Your task to perform on an android device: turn on the 24-hour format for clock Image 0: 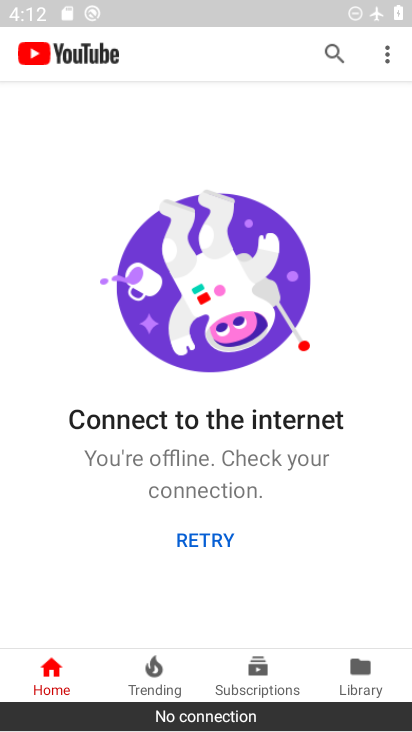
Step 0: press back button
Your task to perform on an android device: turn on the 24-hour format for clock Image 1: 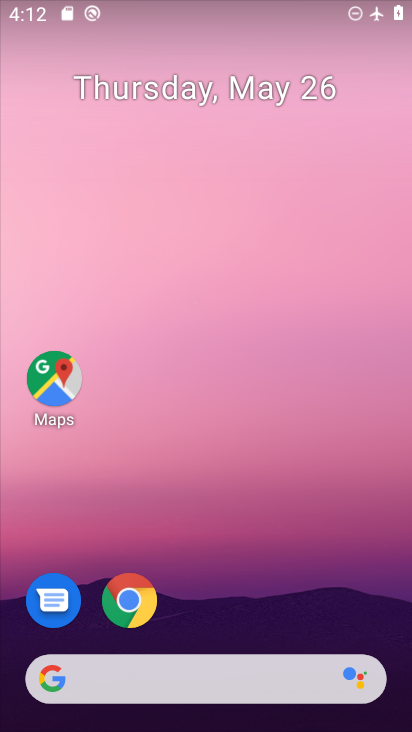
Step 1: drag from (288, 556) to (189, 18)
Your task to perform on an android device: turn on the 24-hour format for clock Image 2: 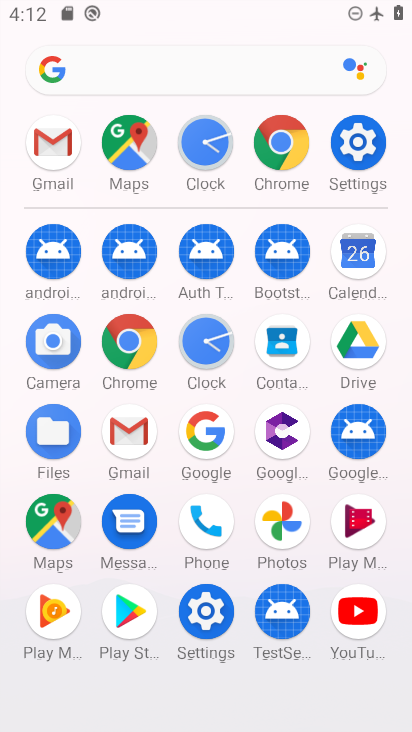
Step 2: click (214, 338)
Your task to perform on an android device: turn on the 24-hour format for clock Image 3: 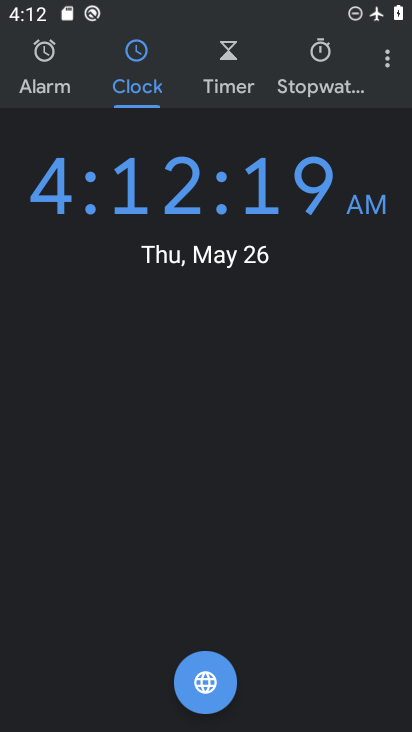
Step 3: drag from (382, 63) to (342, 119)
Your task to perform on an android device: turn on the 24-hour format for clock Image 4: 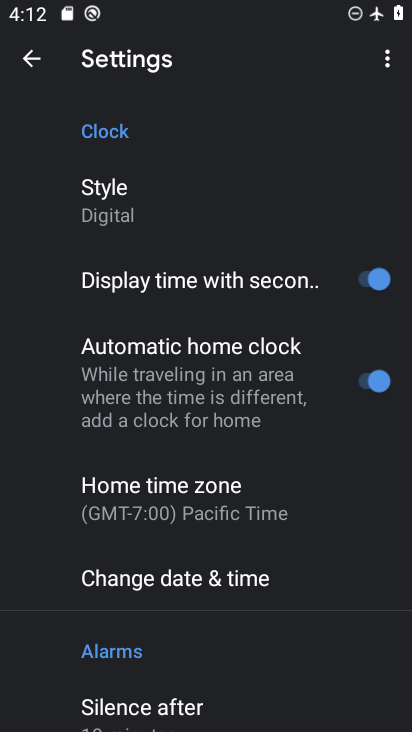
Step 4: click (216, 590)
Your task to perform on an android device: turn on the 24-hour format for clock Image 5: 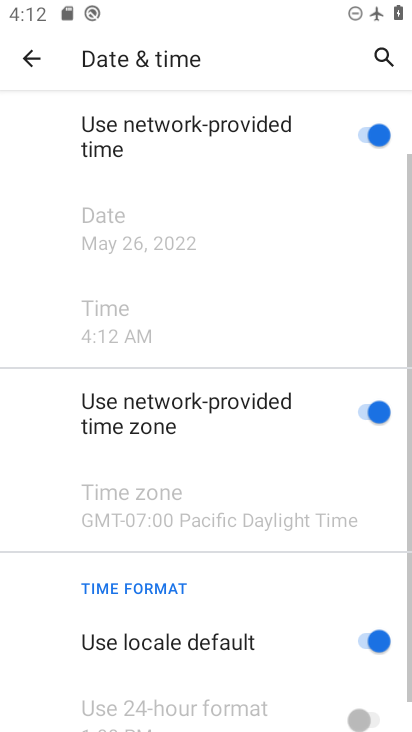
Step 5: drag from (222, 597) to (242, 198)
Your task to perform on an android device: turn on the 24-hour format for clock Image 6: 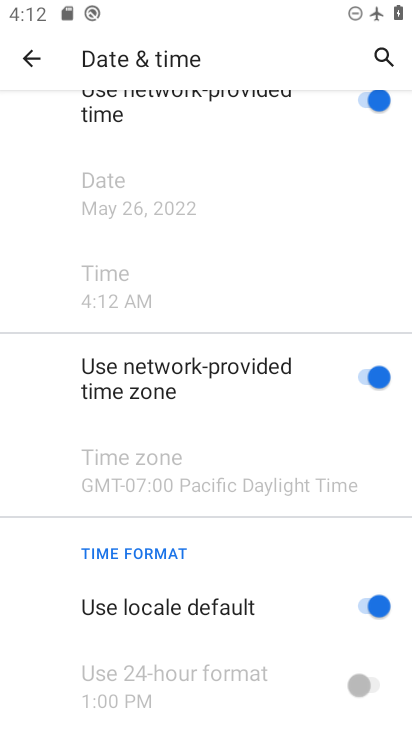
Step 6: click (372, 596)
Your task to perform on an android device: turn on the 24-hour format for clock Image 7: 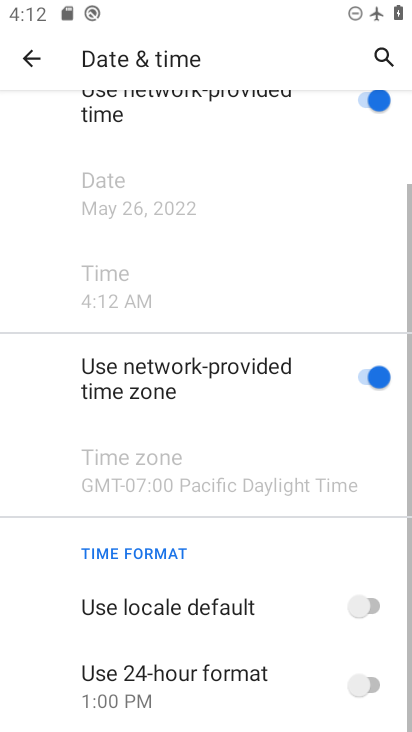
Step 7: click (372, 686)
Your task to perform on an android device: turn on the 24-hour format for clock Image 8: 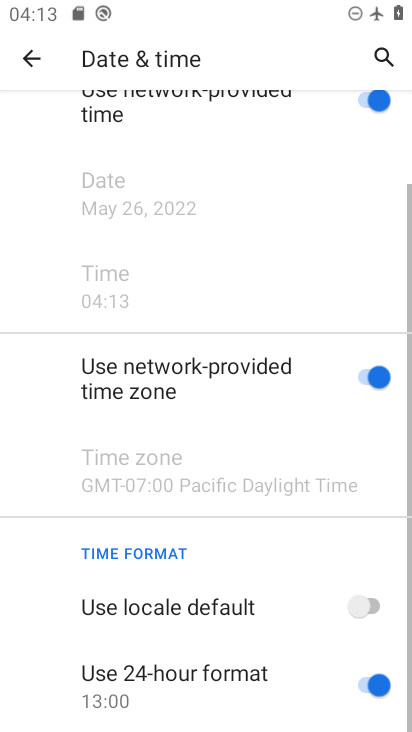
Step 8: task complete